Your task to perform on an android device: Go to wifi settings Image 0: 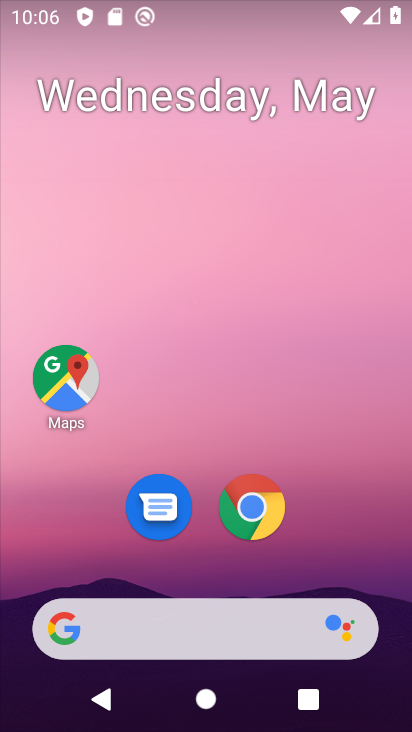
Step 0: press home button
Your task to perform on an android device: Go to wifi settings Image 1: 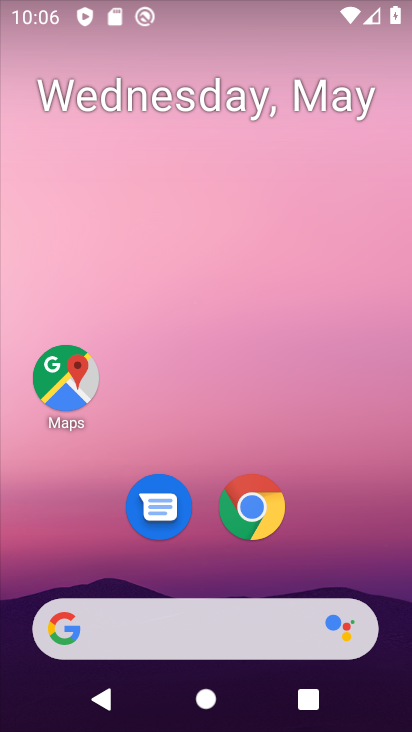
Step 1: drag from (210, 561) to (314, 39)
Your task to perform on an android device: Go to wifi settings Image 2: 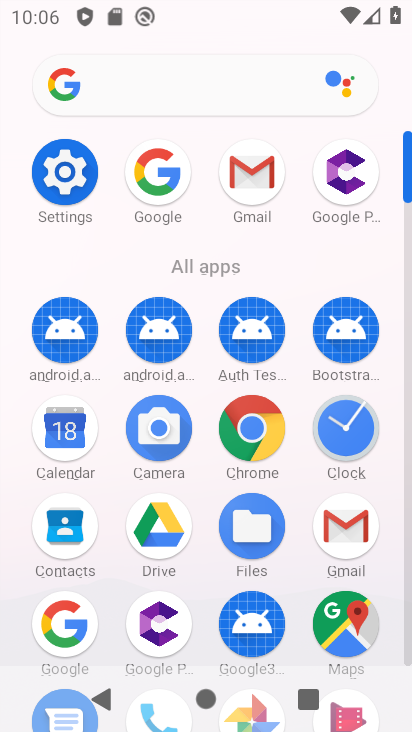
Step 2: click (69, 173)
Your task to perform on an android device: Go to wifi settings Image 3: 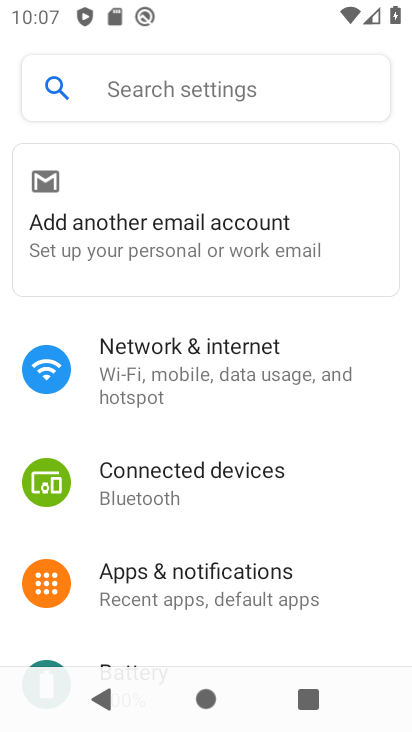
Step 3: click (128, 362)
Your task to perform on an android device: Go to wifi settings Image 4: 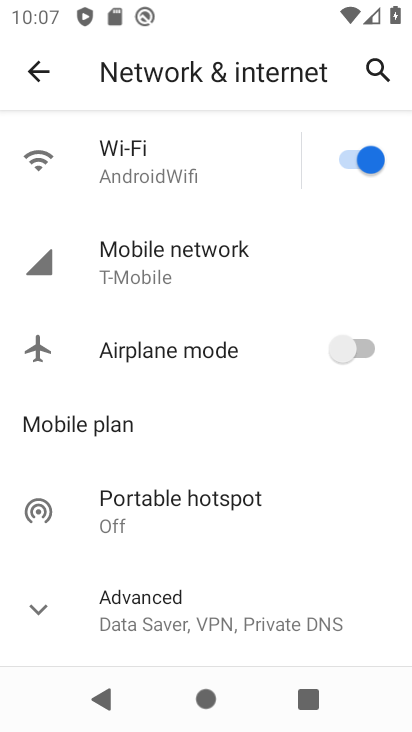
Step 4: click (232, 164)
Your task to perform on an android device: Go to wifi settings Image 5: 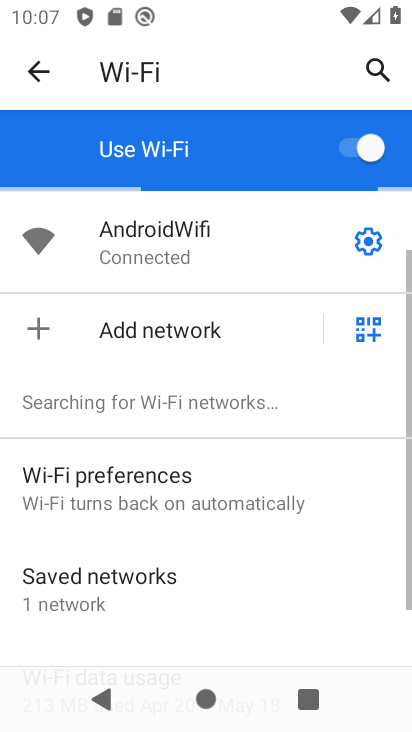
Step 5: task complete